Your task to perform on an android device: see sites visited before in the chrome app Image 0: 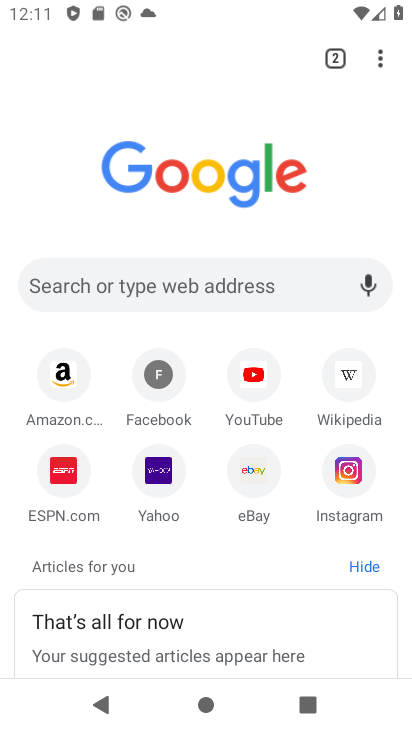
Step 0: drag from (213, 552) to (270, 46)
Your task to perform on an android device: see sites visited before in the chrome app Image 1: 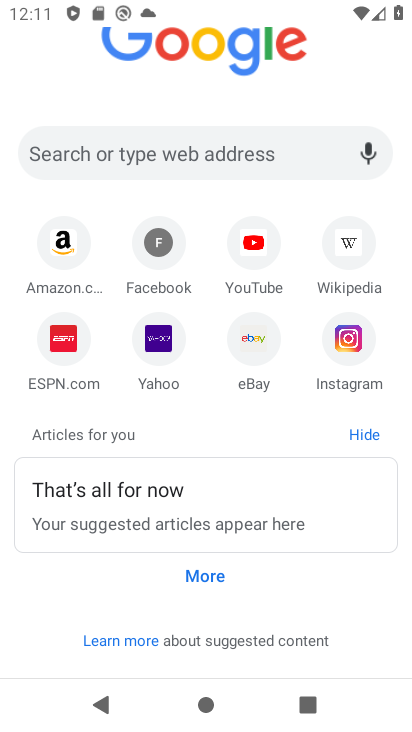
Step 1: drag from (211, 125) to (334, 682)
Your task to perform on an android device: see sites visited before in the chrome app Image 2: 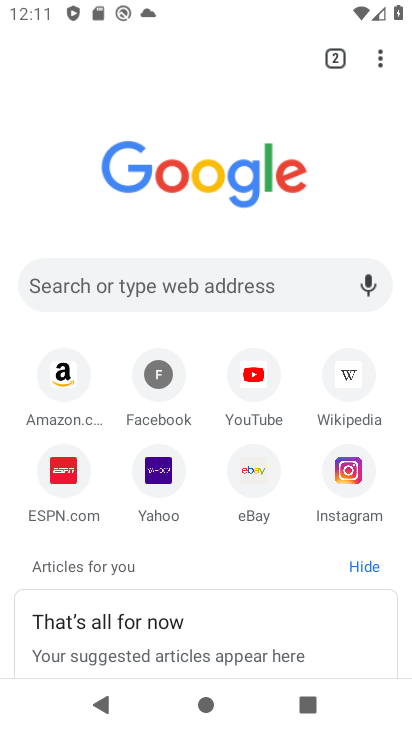
Step 2: drag from (386, 50) to (245, 501)
Your task to perform on an android device: see sites visited before in the chrome app Image 3: 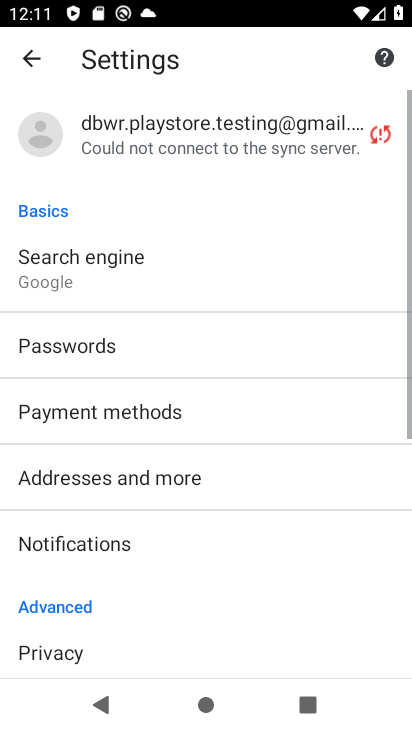
Step 3: drag from (248, 454) to (288, 84)
Your task to perform on an android device: see sites visited before in the chrome app Image 4: 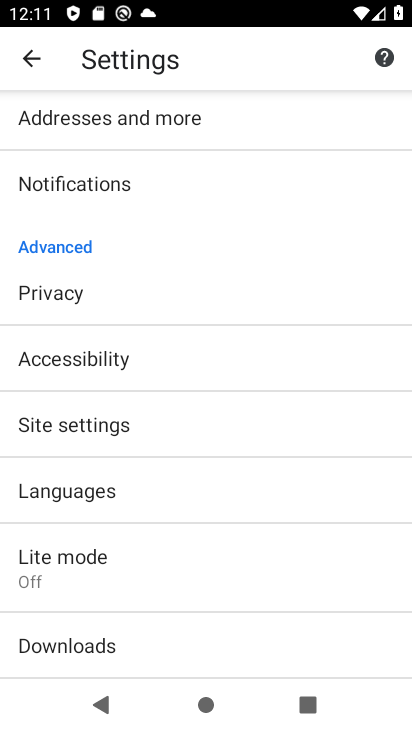
Step 4: click (41, 67)
Your task to perform on an android device: see sites visited before in the chrome app Image 5: 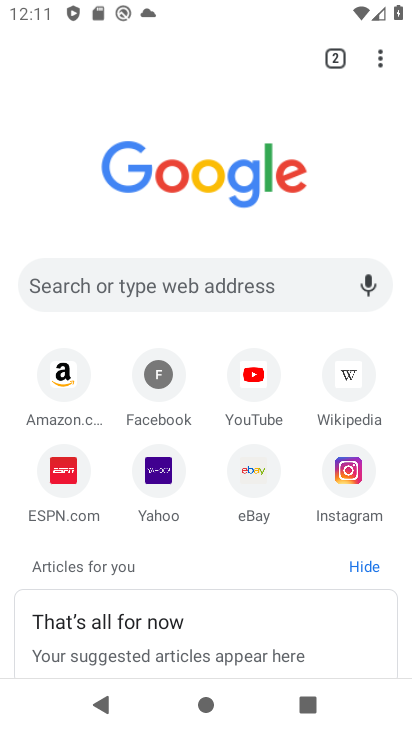
Step 5: task complete